Your task to perform on an android device: see tabs open on other devices in the chrome app Image 0: 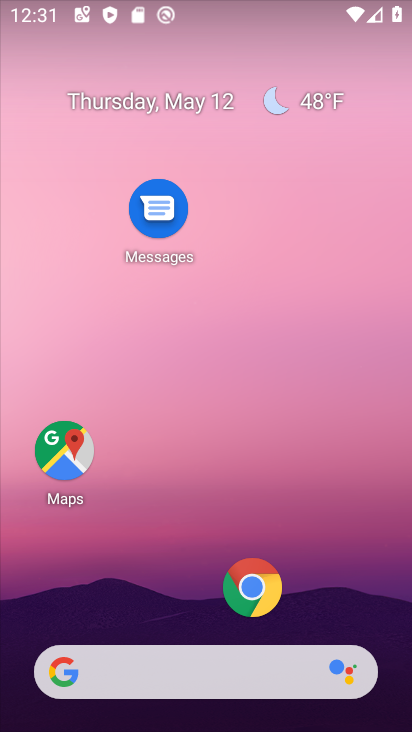
Step 0: drag from (205, 634) to (197, 34)
Your task to perform on an android device: see tabs open on other devices in the chrome app Image 1: 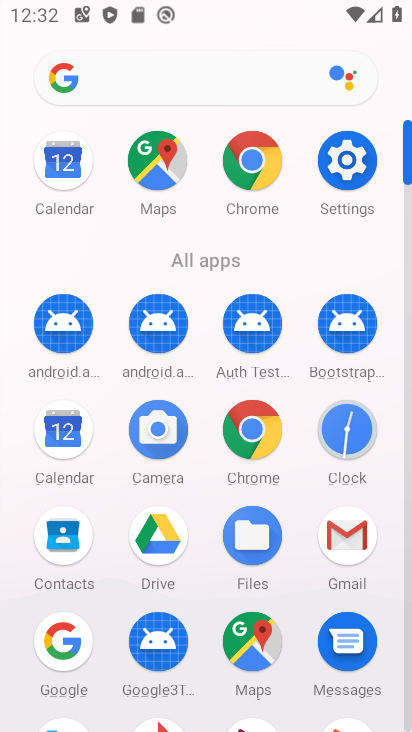
Step 1: click (249, 433)
Your task to perform on an android device: see tabs open on other devices in the chrome app Image 2: 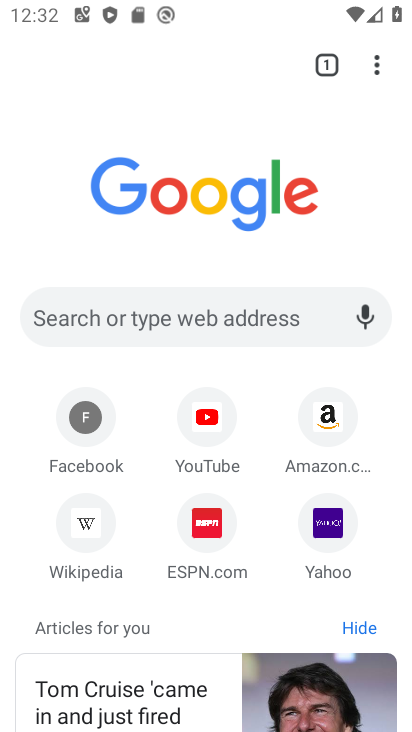
Step 2: click (327, 63)
Your task to perform on an android device: see tabs open on other devices in the chrome app Image 3: 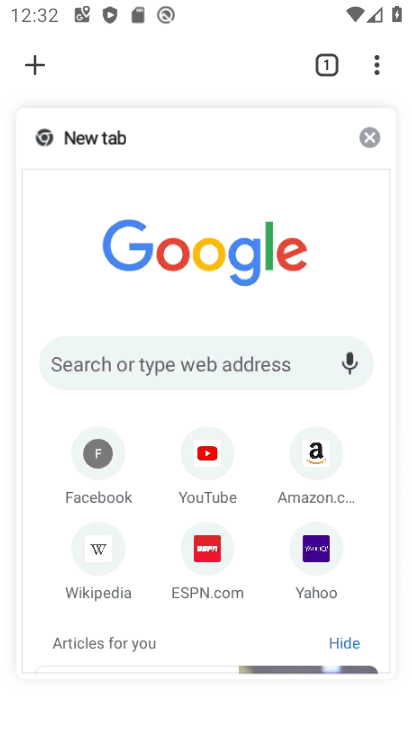
Step 3: task complete